Your task to perform on an android device: Do I have any events tomorrow? Image 0: 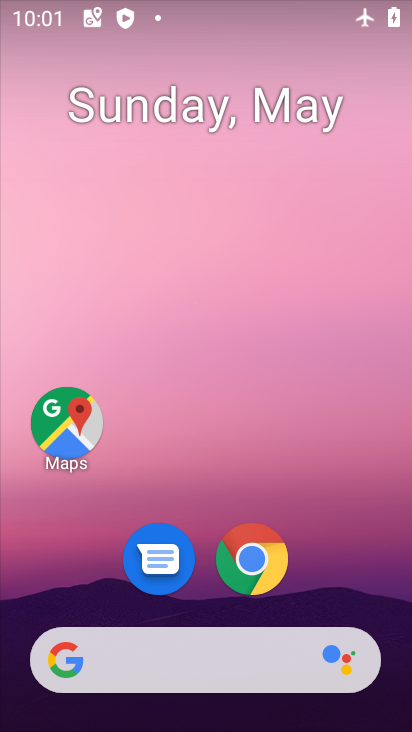
Step 0: drag from (204, 605) to (203, 44)
Your task to perform on an android device: Do I have any events tomorrow? Image 1: 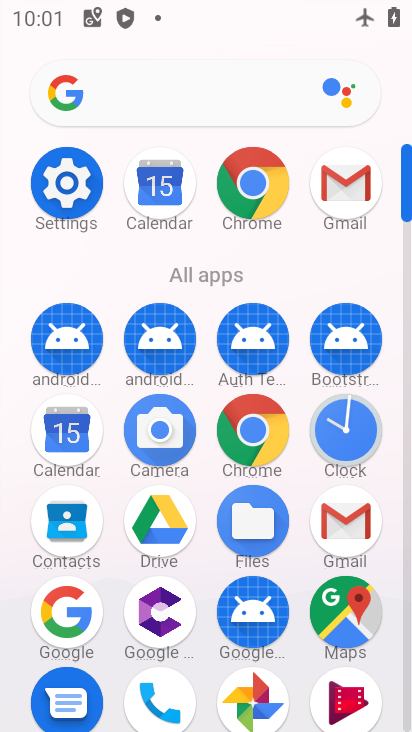
Step 1: drag from (203, 569) to (198, 92)
Your task to perform on an android device: Do I have any events tomorrow? Image 2: 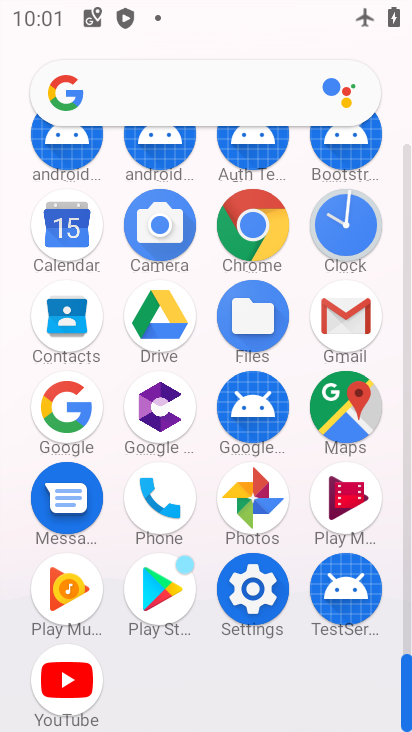
Step 2: click (62, 250)
Your task to perform on an android device: Do I have any events tomorrow? Image 3: 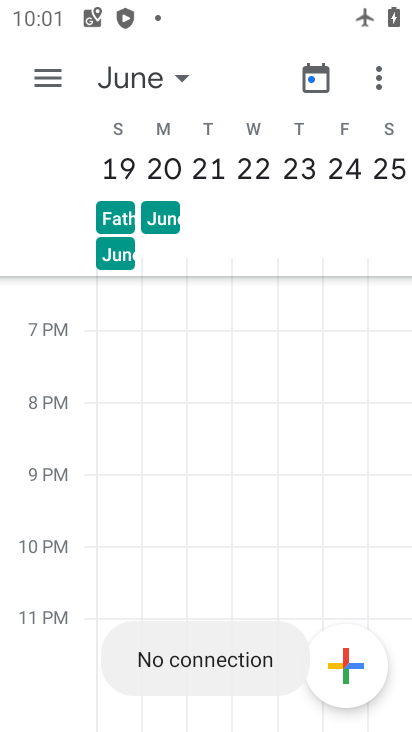
Step 3: click (304, 87)
Your task to perform on an android device: Do I have any events tomorrow? Image 4: 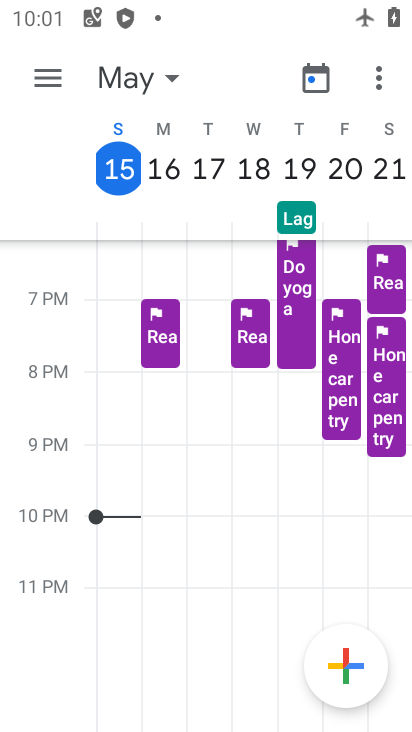
Step 4: click (153, 173)
Your task to perform on an android device: Do I have any events tomorrow? Image 5: 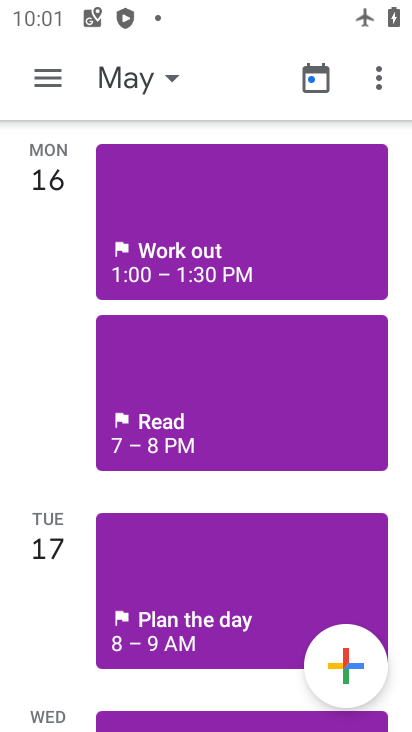
Step 5: task complete